Your task to perform on an android device: turn on wifi Image 0: 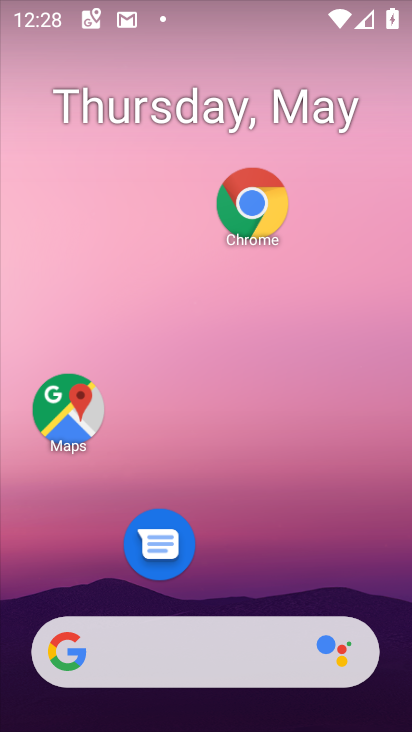
Step 0: drag from (289, 700) to (259, 4)
Your task to perform on an android device: turn on wifi Image 1: 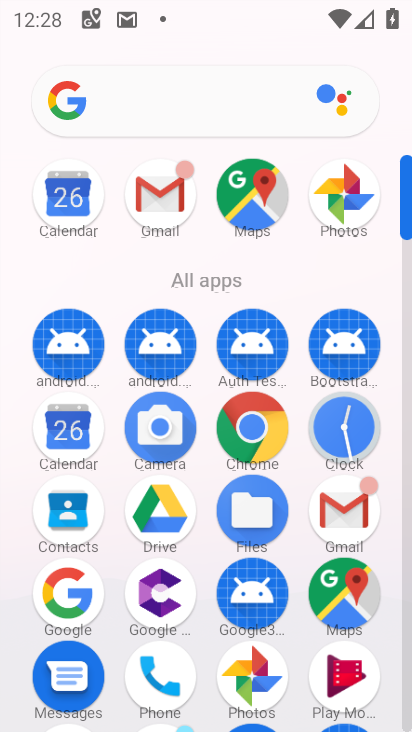
Step 1: drag from (259, 609) to (291, 0)
Your task to perform on an android device: turn on wifi Image 2: 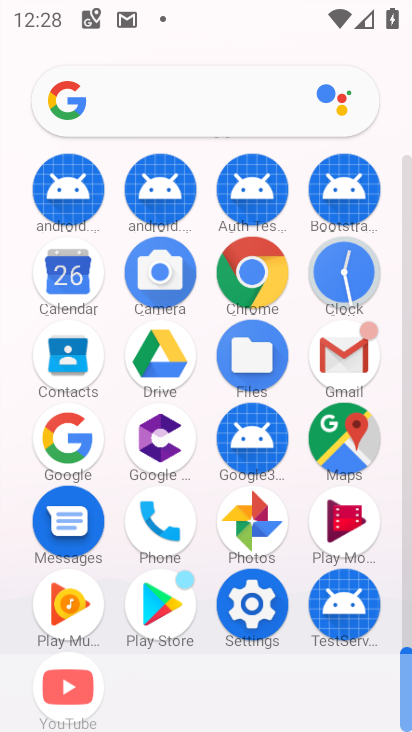
Step 2: click (252, 625)
Your task to perform on an android device: turn on wifi Image 3: 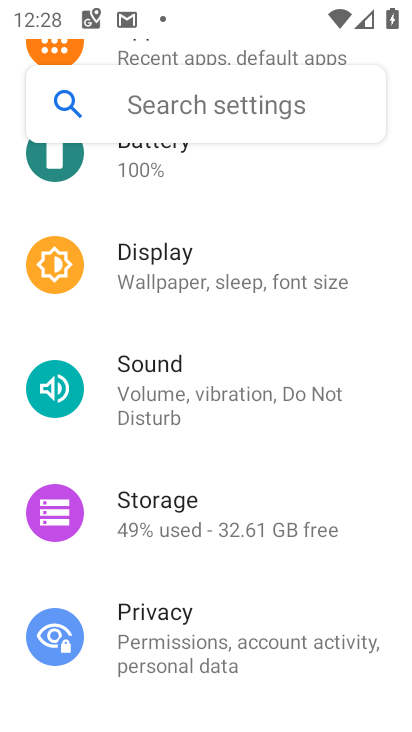
Step 3: drag from (311, 221) to (291, 593)
Your task to perform on an android device: turn on wifi Image 4: 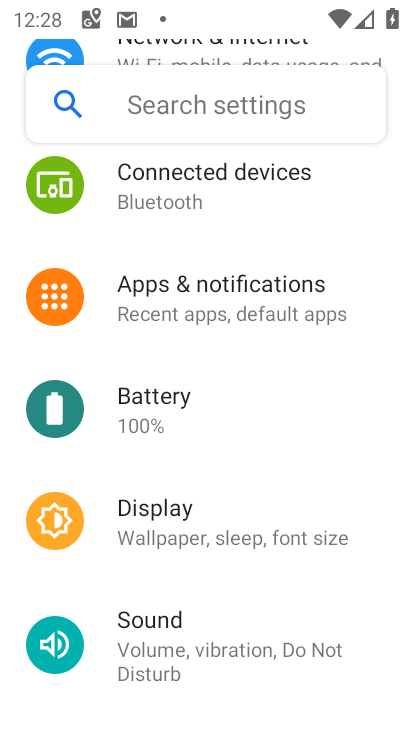
Step 4: drag from (338, 186) to (289, 600)
Your task to perform on an android device: turn on wifi Image 5: 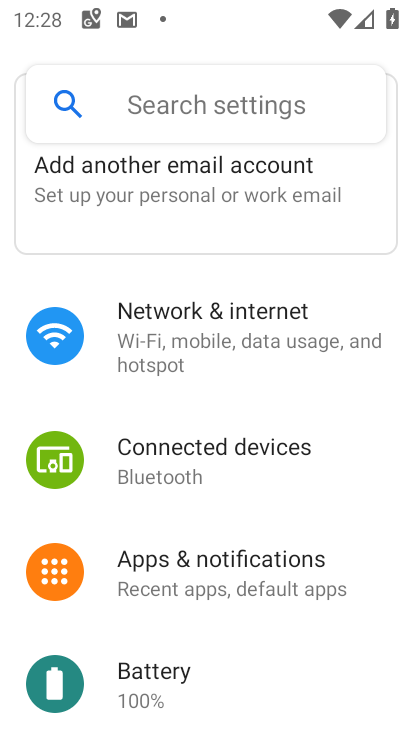
Step 5: click (254, 331)
Your task to perform on an android device: turn on wifi Image 6: 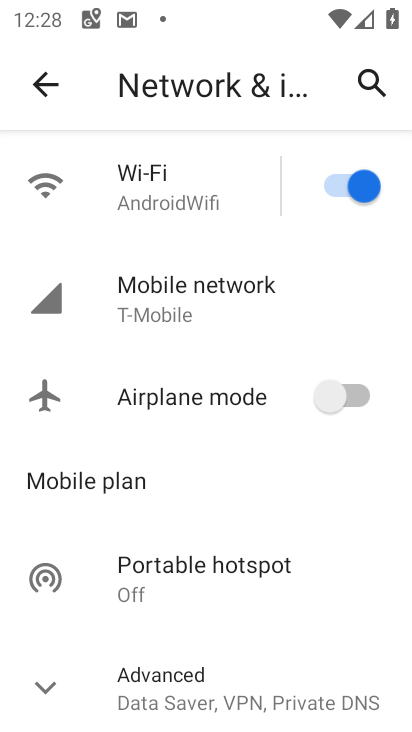
Step 6: task complete